Your task to perform on an android device: allow notifications from all sites in the chrome app Image 0: 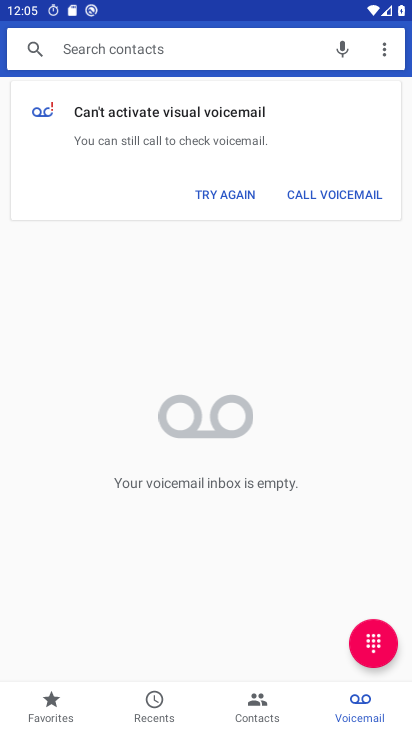
Step 0: press home button
Your task to perform on an android device: allow notifications from all sites in the chrome app Image 1: 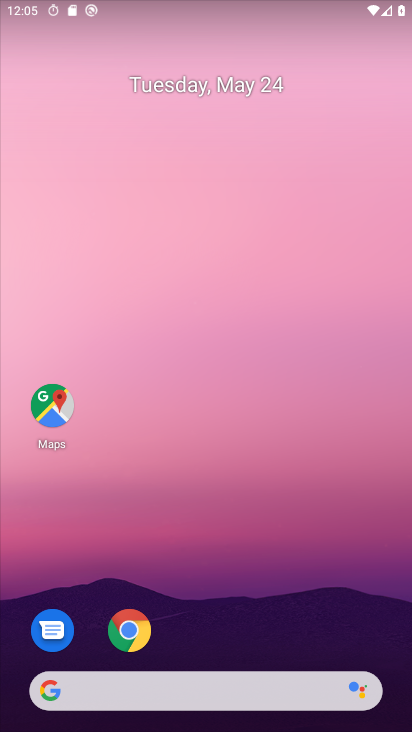
Step 1: click (120, 633)
Your task to perform on an android device: allow notifications from all sites in the chrome app Image 2: 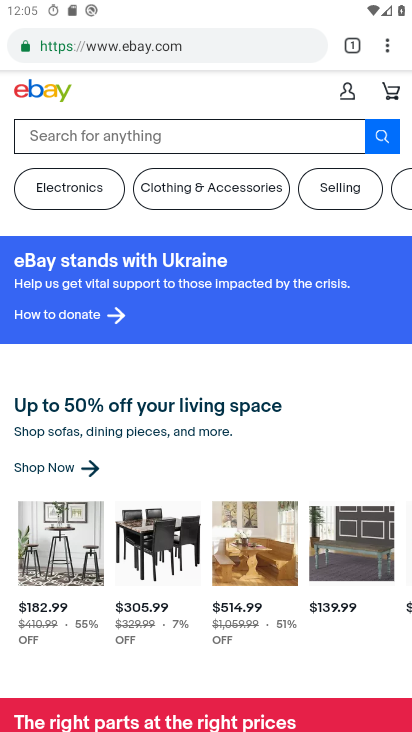
Step 2: click (391, 42)
Your task to perform on an android device: allow notifications from all sites in the chrome app Image 3: 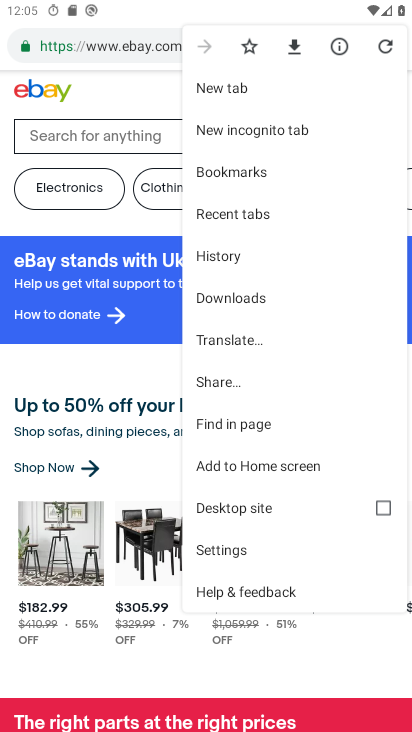
Step 3: click (233, 551)
Your task to perform on an android device: allow notifications from all sites in the chrome app Image 4: 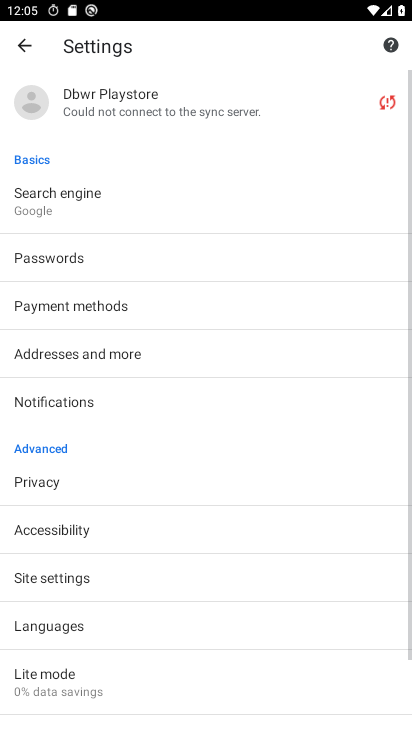
Step 4: click (67, 399)
Your task to perform on an android device: allow notifications from all sites in the chrome app Image 5: 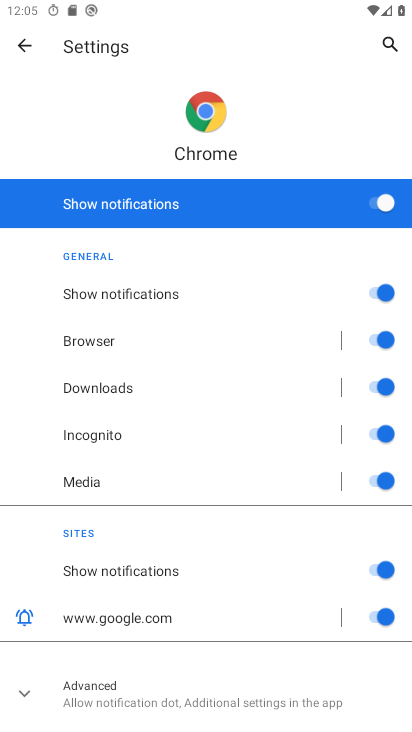
Step 5: task complete